Your task to perform on an android device: Search for Italian restaurants on Maps Image 0: 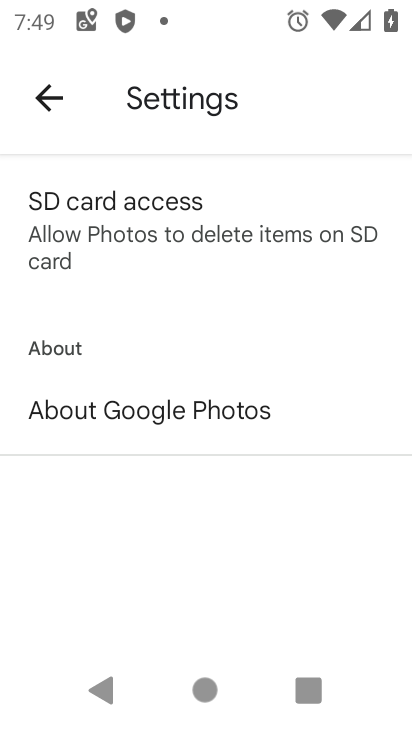
Step 0: press home button
Your task to perform on an android device: Search for Italian restaurants on Maps Image 1: 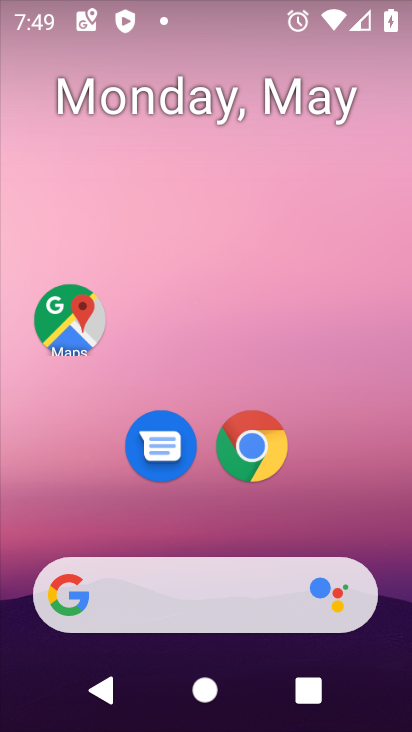
Step 1: click (64, 326)
Your task to perform on an android device: Search for Italian restaurants on Maps Image 2: 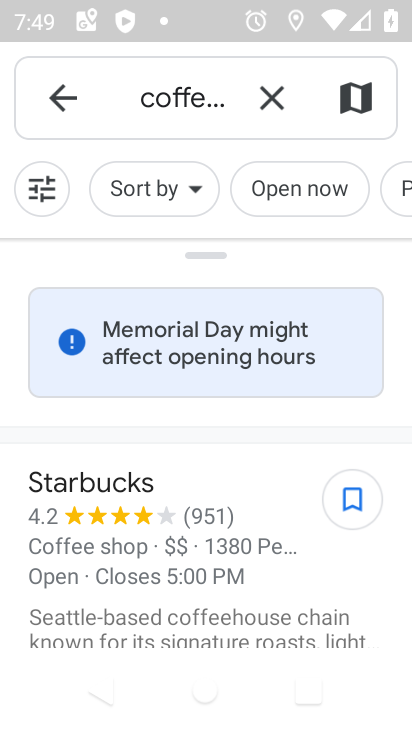
Step 2: click (56, 99)
Your task to perform on an android device: Search for Italian restaurants on Maps Image 3: 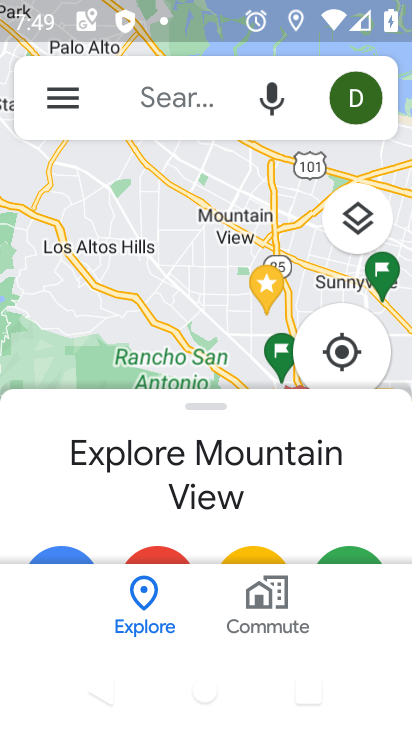
Step 3: click (68, 108)
Your task to perform on an android device: Search for Italian restaurants on Maps Image 4: 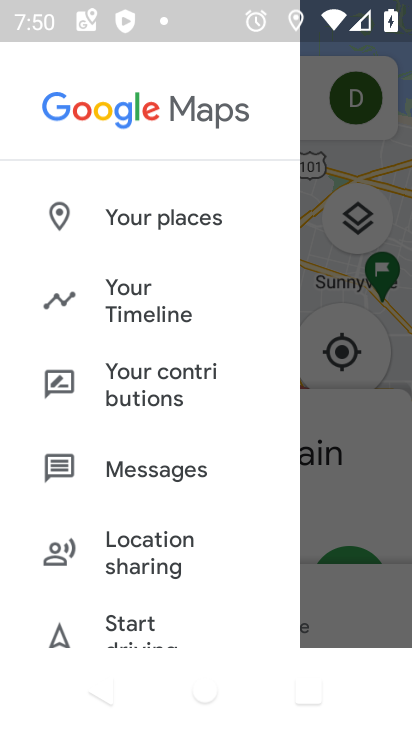
Step 4: click (329, 201)
Your task to perform on an android device: Search for Italian restaurants on Maps Image 5: 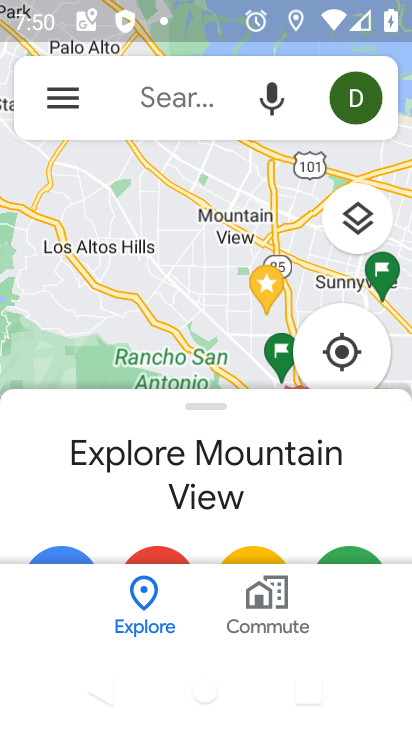
Step 5: click (184, 84)
Your task to perform on an android device: Search for Italian restaurants on Maps Image 6: 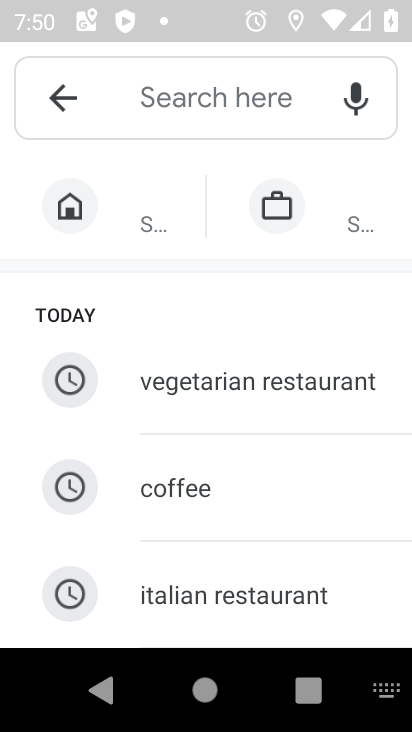
Step 6: click (230, 592)
Your task to perform on an android device: Search for Italian restaurants on Maps Image 7: 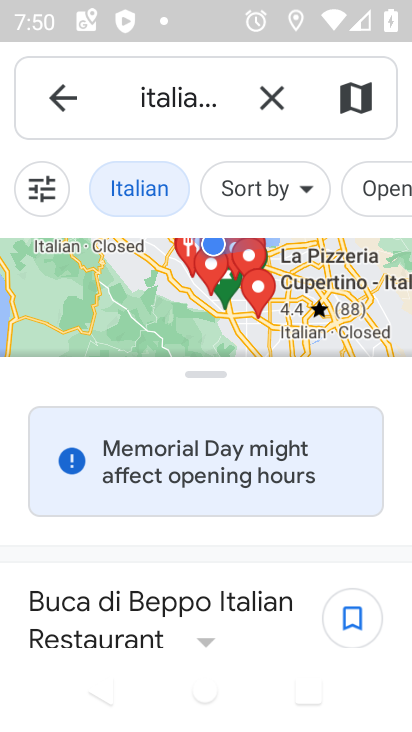
Step 7: task complete